Your task to perform on an android device: What is the recent news? Image 0: 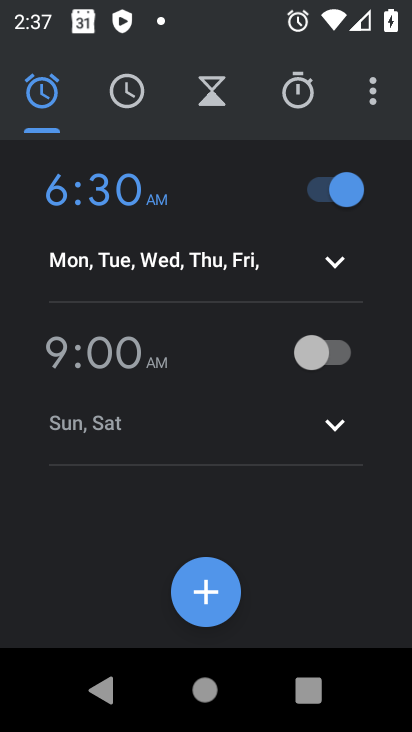
Step 0: press home button
Your task to perform on an android device: What is the recent news? Image 1: 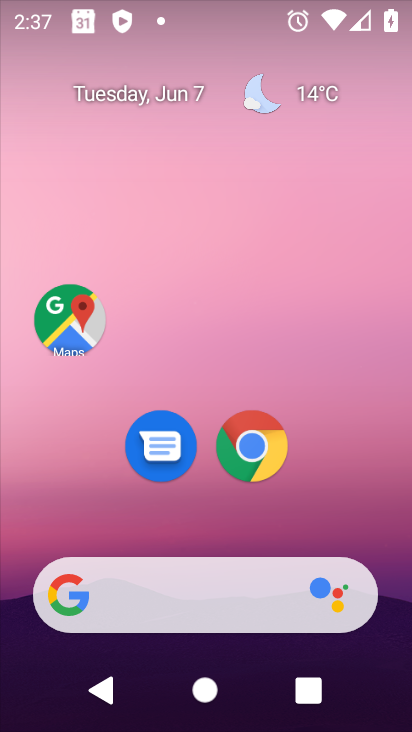
Step 1: task complete